Your task to perform on an android device: toggle sleep mode Image 0: 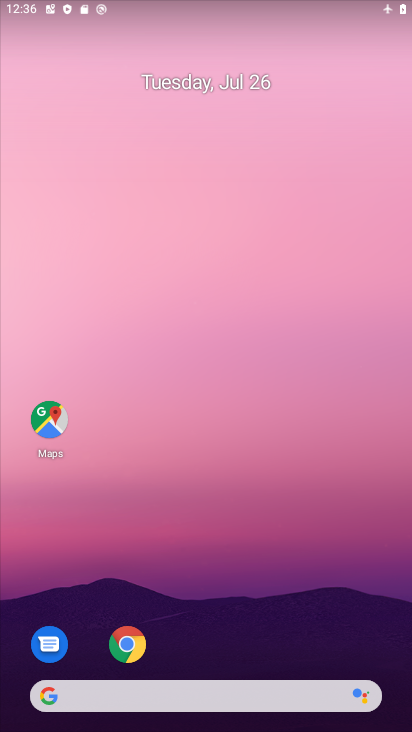
Step 0: drag from (217, 655) to (256, 175)
Your task to perform on an android device: toggle sleep mode Image 1: 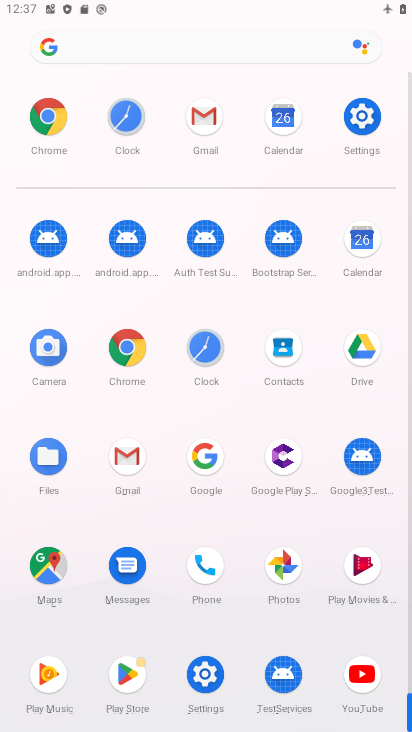
Step 1: click (352, 132)
Your task to perform on an android device: toggle sleep mode Image 2: 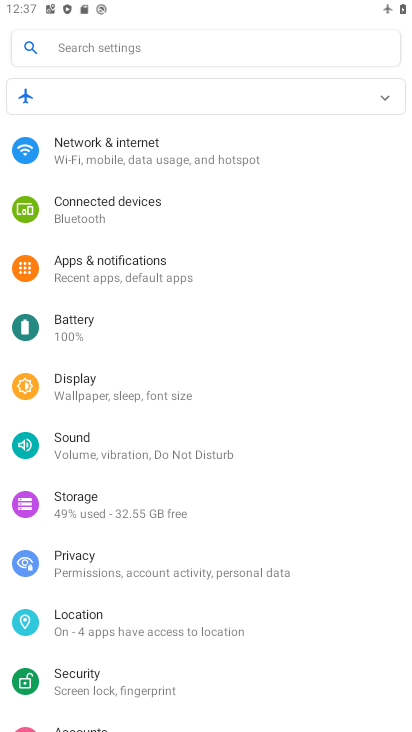
Step 2: click (126, 383)
Your task to perform on an android device: toggle sleep mode Image 3: 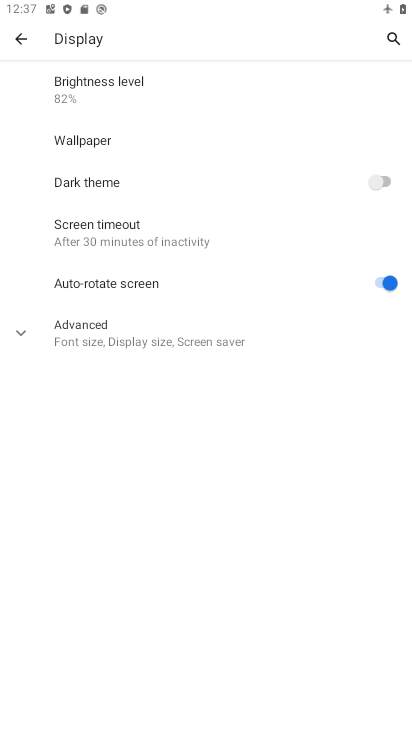
Step 3: click (144, 338)
Your task to perform on an android device: toggle sleep mode Image 4: 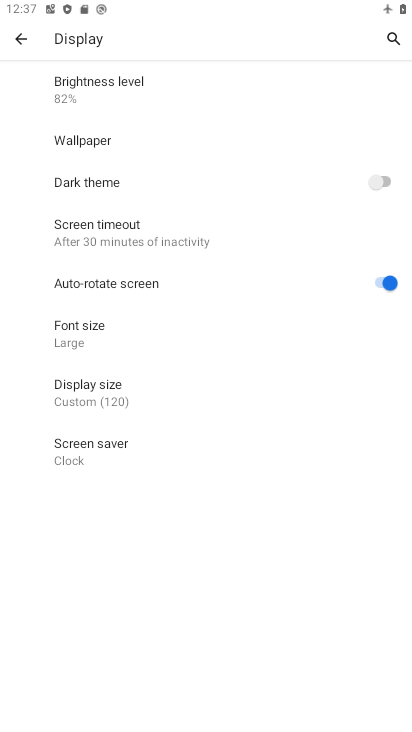
Step 4: task complete